Your task to perform on an android device: turn notification dots on Image 0: 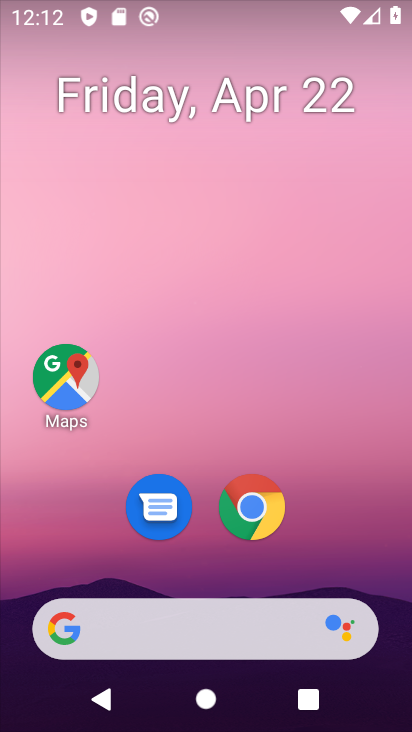
Step 0: drag from (336, 420) to (324, 77)
Your task to perform on an android device: turn notification dots on Image 1: 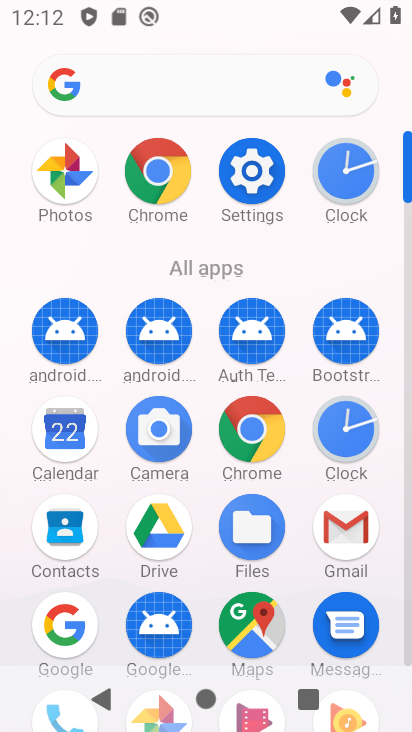
Step 1: click (258, 180)
Your task to perform on an android device: turn notification dots on Image 2: 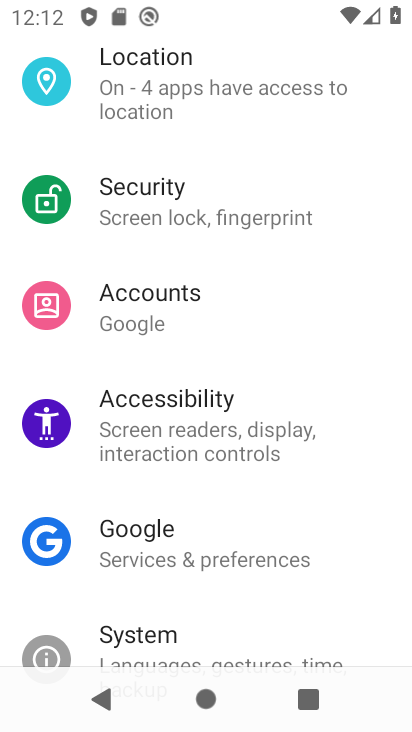
Step 2: drag from (300, 117) to (225, 603)
Your task to perform on an android device: turn notification dots on Image 3: 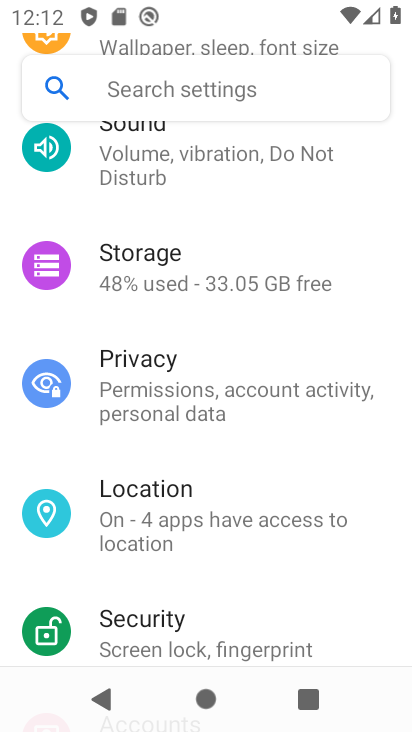
Step 3: drag from (341, 201) to (297, 570)
Your task to perform on an android device: turn notification dots on Image 4: 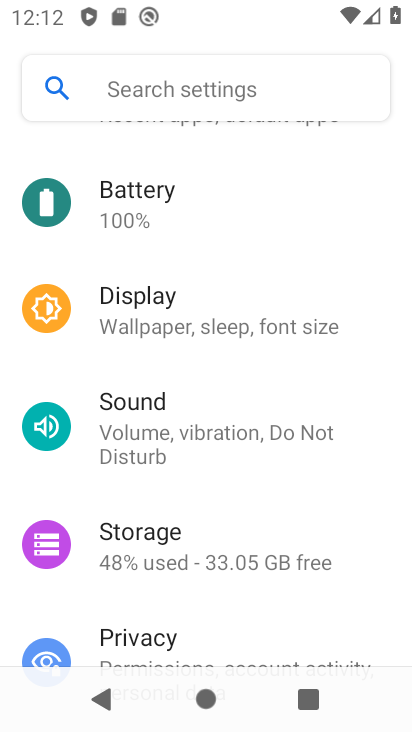
Step 4: drag from (235, 192) to (283, 474)
Your task to perform on an android device: turn notification dots on Image 5: 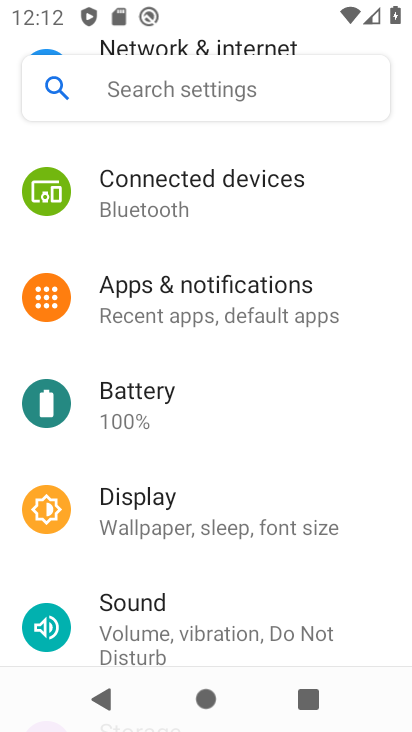
Step 5: click (246, 305)
Your task to perform on an android device: turn notification dots on Image 6: 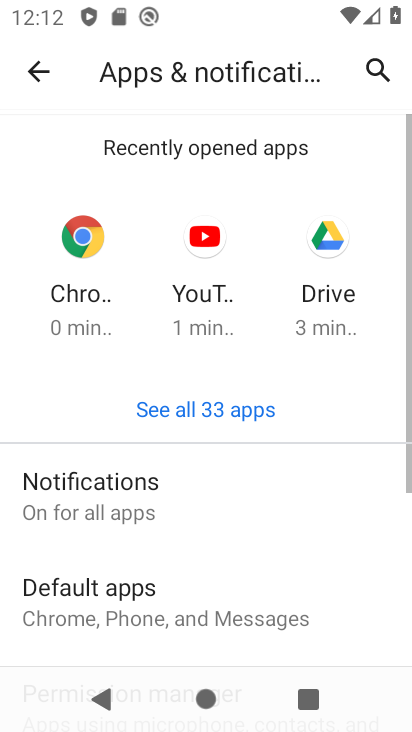
Step 6: click (86, 499)
Your task to perform on an android device: turn notification dots on Image 7: 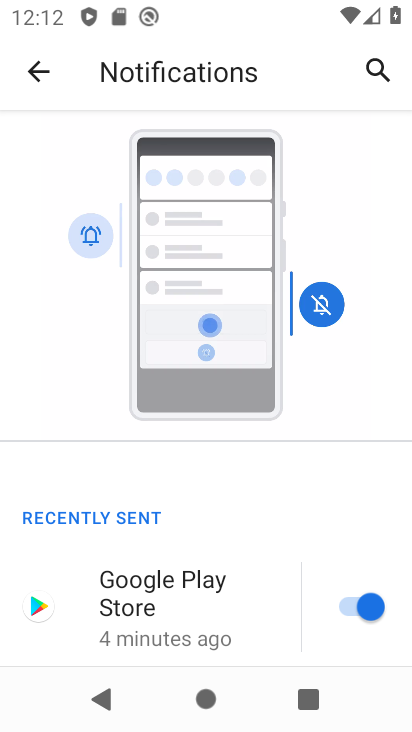
Step 7: drag from (90, 618) to (117, 203)
Your task to perform on an android device: turn notification dots on Image 8: 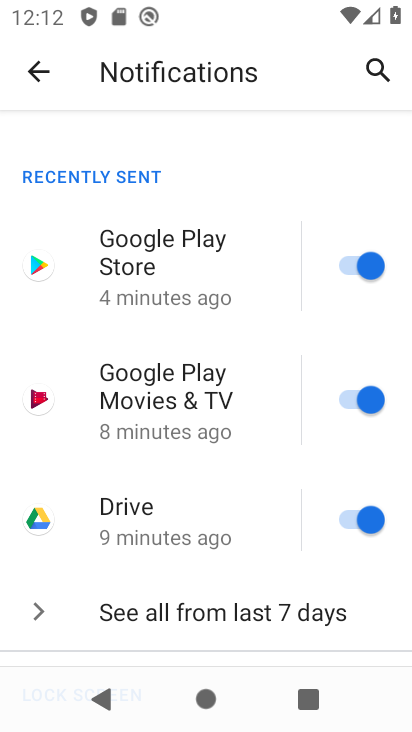
Step 8: drag from (149, 533) to (149, 189)
Your task to perform on an android device: turn notification dots on Image 9: 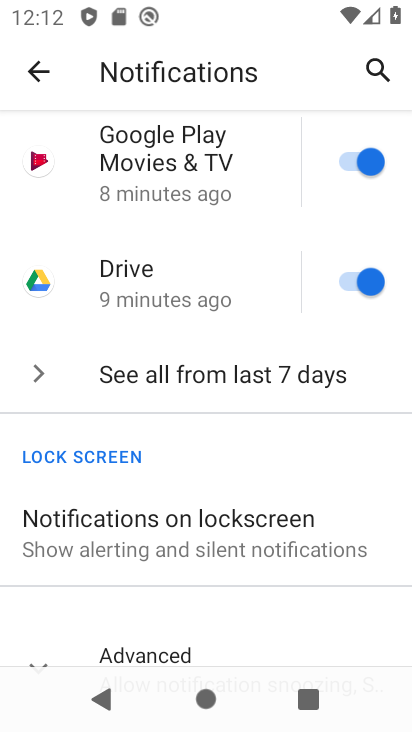
Step 9: drag from (160, 561) to (178, 243)
Your task to perform on an android device: turn notification dots on Image 10: 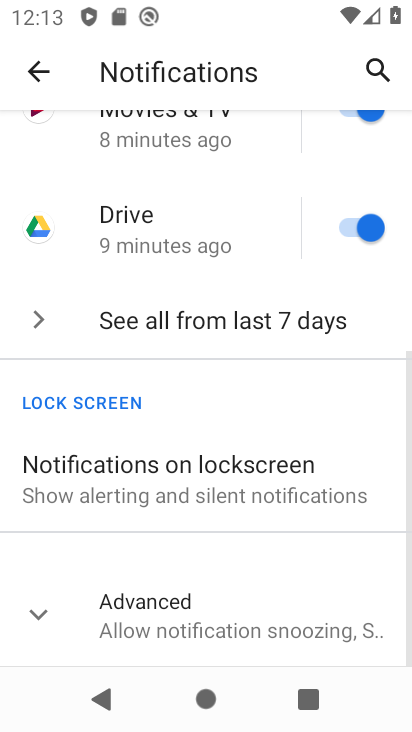
Step 10: click (158, 608)
Your task to perform on an android device: turn notification dots on Image 11: 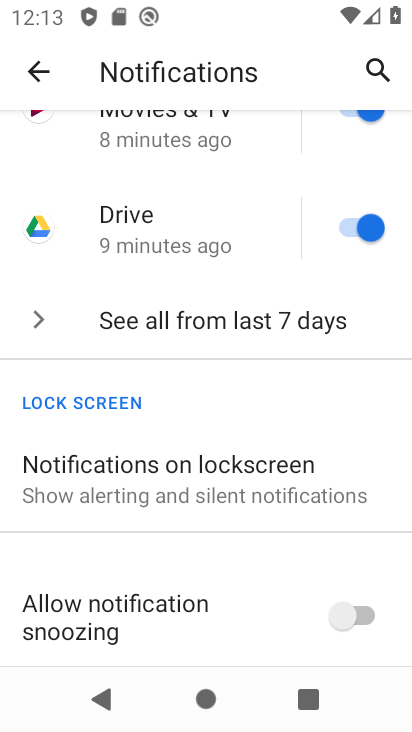
Step 11: task complete